Your task to perform on an android device: check storage Image 0: 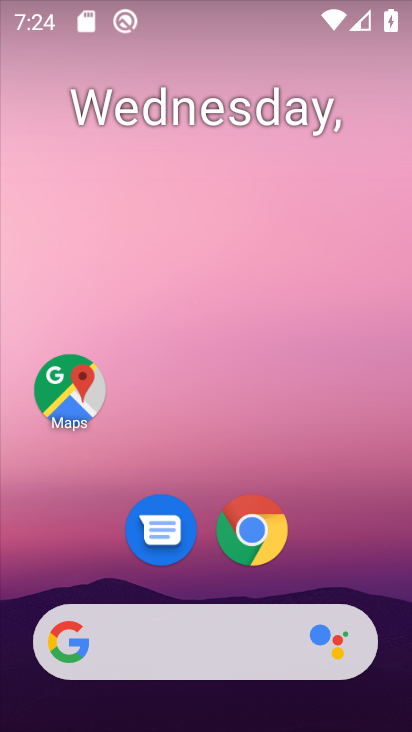
Step 0: drag from (388, 605) to (316, 60)
Your task to perform on an android device: check storage Image 1: 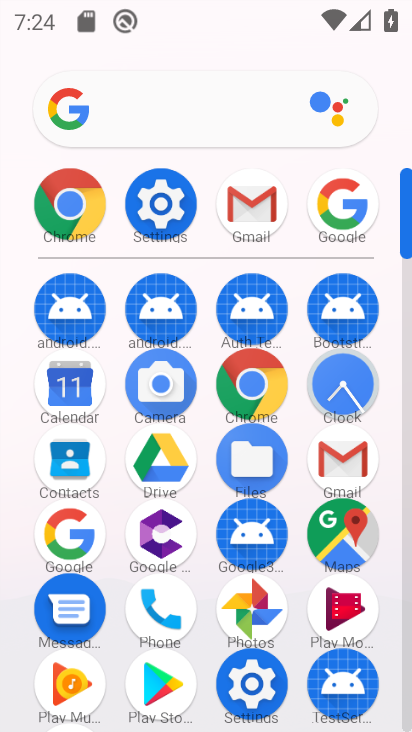
Step 1: click (257, 686)
Your task to perform on an android device: check storage Image 2: 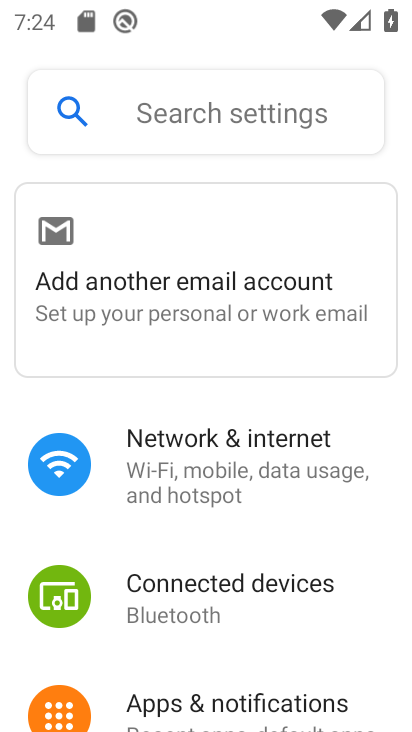
Step 2: drag from (181, 659) to (166, 185)
Your task to perform on an android device: check storage Image 3: 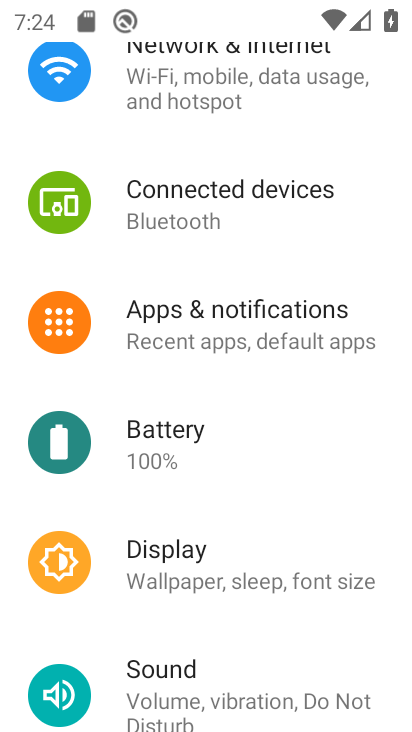
Step 3: drag from (166, 647) to (216, 194)
Your task to perform on an android device: check storage Image 4: 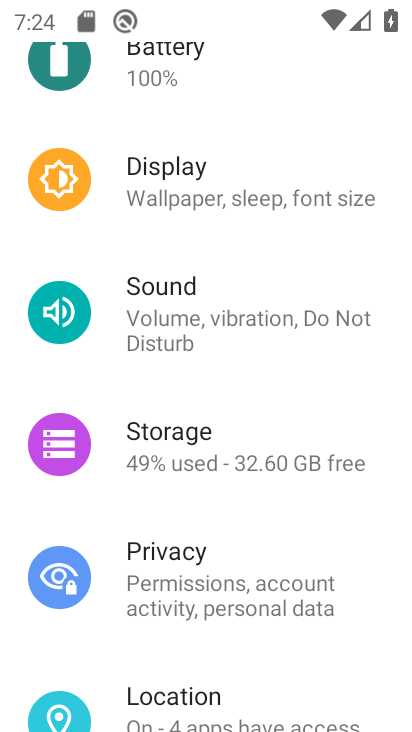
Step 4: click (209, 449)
Your task to perform on an android device: check storage Image 5: 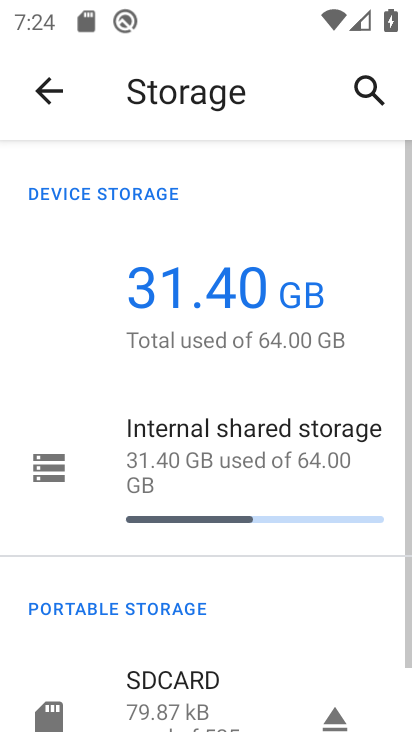
Step 5: click (209, 449)
Your task to perform on an android device: check storage Image 6: 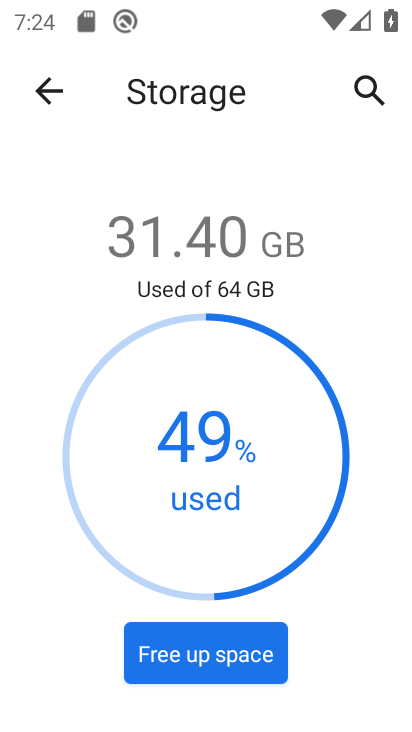
Step 6: task complete